Your task to perform on an android device: Open Google Maps and go to "Timeline" Image 0: 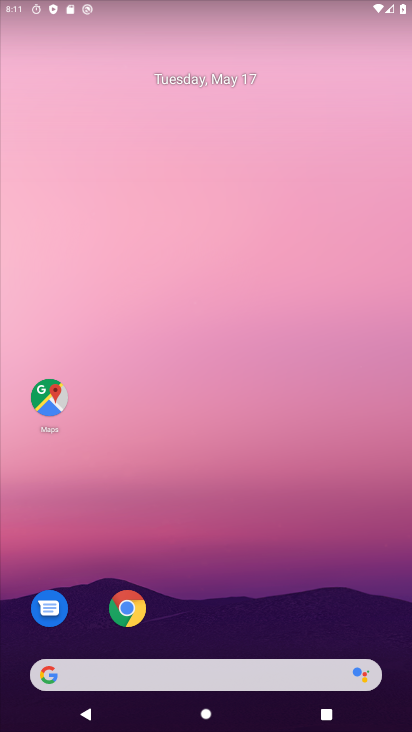
Step 0: drag from (347, 570) to (281, 115)
Your task to perform on an android device: Open Google Maps and go to "Timeline" Image 1: 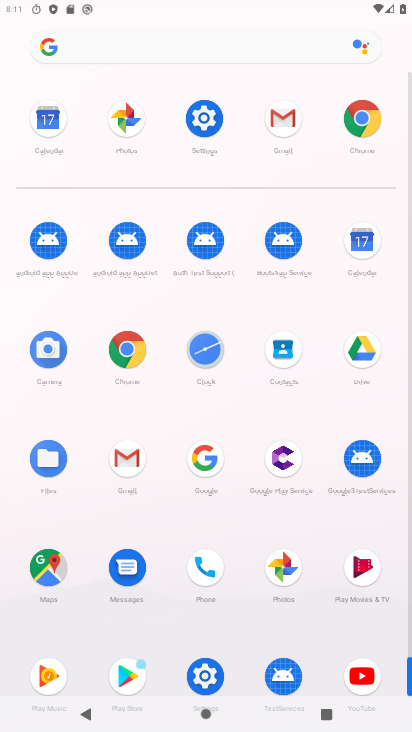
Step 1: drag from (247, 511) to (231, 169)
Your task to perform on an android device: Open Google Maps and go to "Timeline" Image 2: 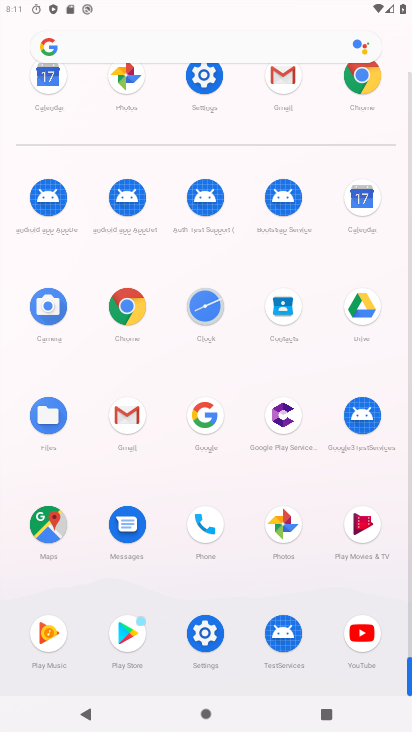
Step 2: click (45, 523)
Your task to perform on an android device: Open Google Maps and go to "Timeline" Image 3: 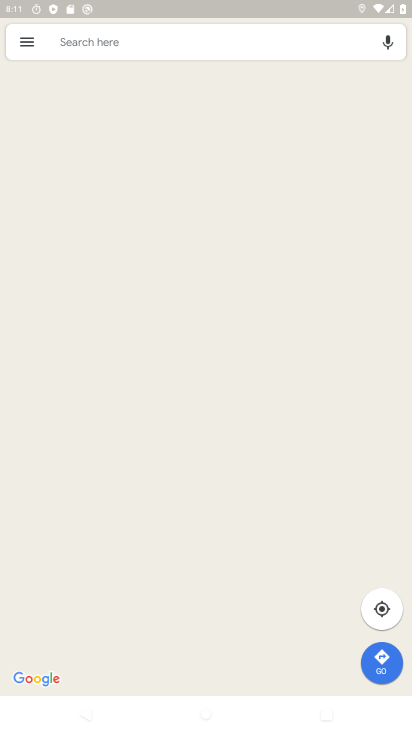
Step 3: click (34, 46)
Your task to perform on an android device: Open Google Maps and go to "Timeline" Image 4: 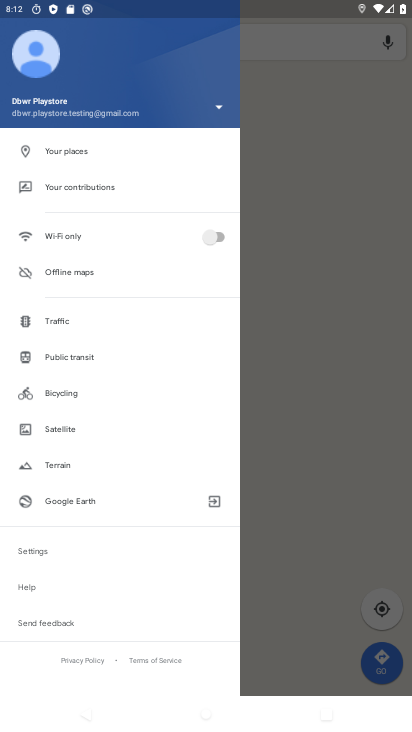
Step 4: click (307, 412)
Your task to perform on an android device: Open Google Maps and go to "Timeline" Image 5: 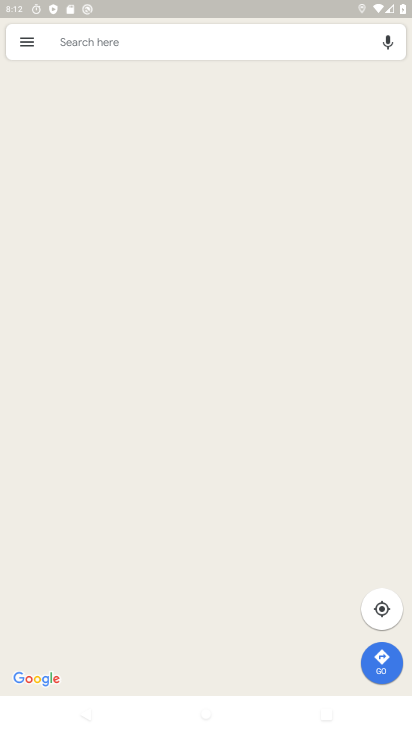
Step 5: task complete